Your task to perform on an android device: turn off priority inbox in the gmail app Image 0: 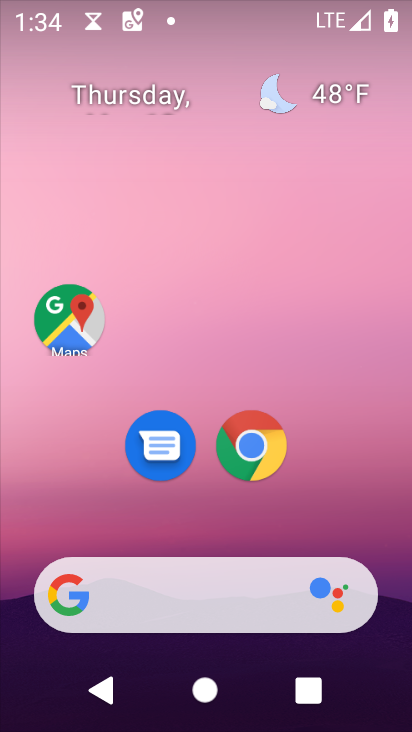
Step 0: drag from (295, 522) to (225, 64)
Your task to perform on an android device: turn off priority inbox in the gmail app Image 1: 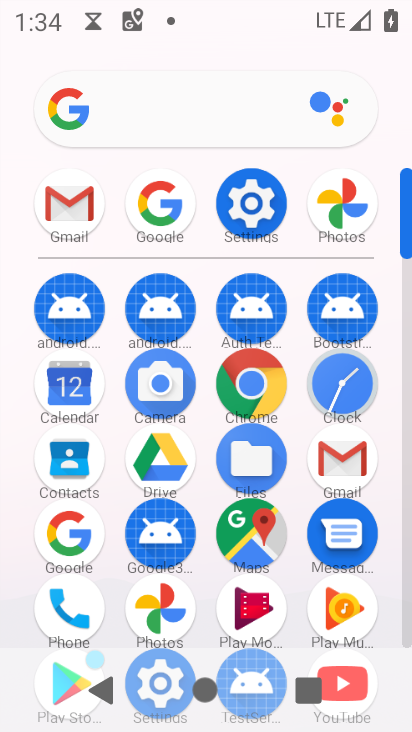
Step 1: click (339, 445)
Your task to perform on an android device: turn off priority inbox in the gmail app Image 2: 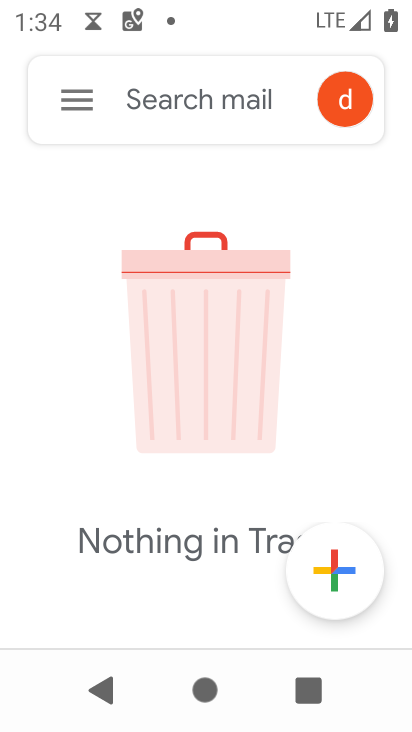
Step 2: click (76, 101)
Your task to perform on an android device: turn off priority inbox in the gmail app Image 3: 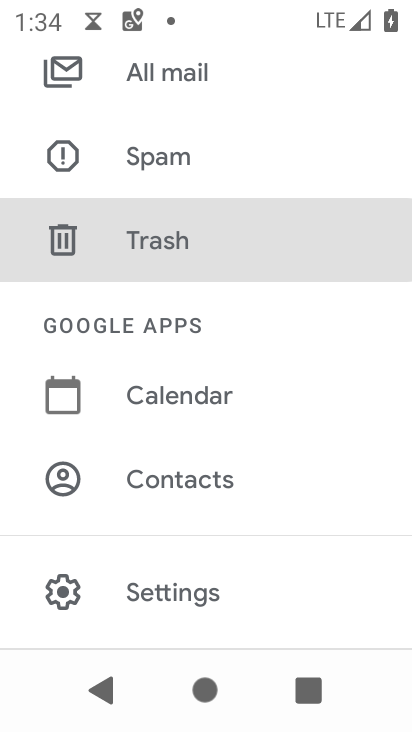
Step 3: click (178, 593)
Your task to perform on an android device: turn off priority inbox in the gmail app Image 4: 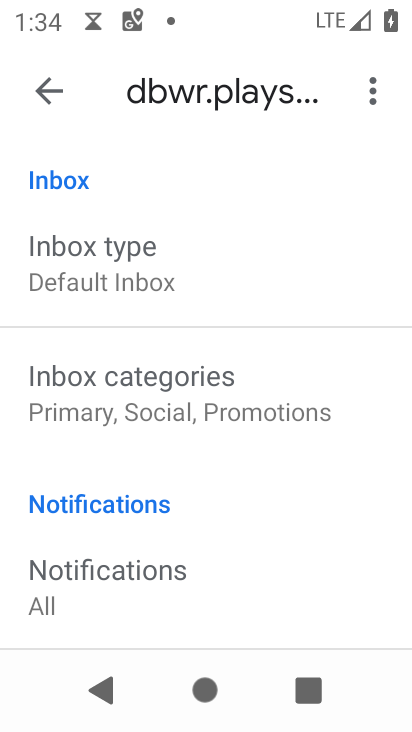
Step 4: click (131, 289)
Your task to perform on an android device: turn off priority inbox in the gmail app Image 5: 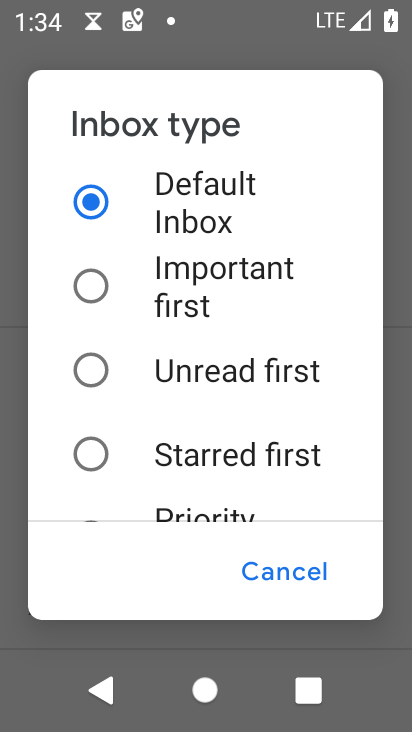
Step 5: drag from (91, 476) to (120, 231)
Your task to perform on an android device: turn off priority inbox in the gmail app Image 6: 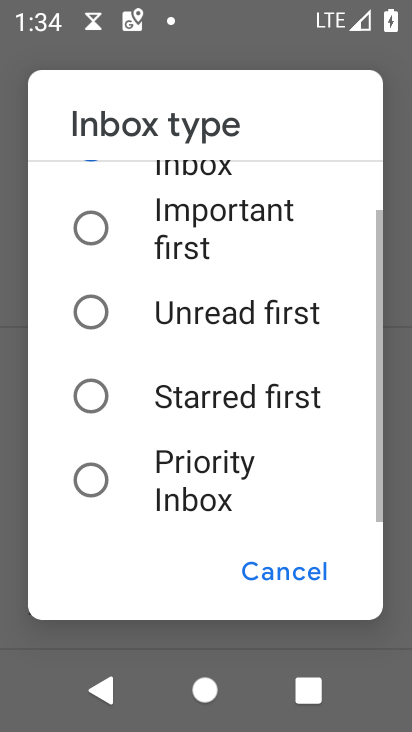
Step 6: click (96, 474)
Your task to perform on an android device: turn off priority inbox in the gmail app Image 7: 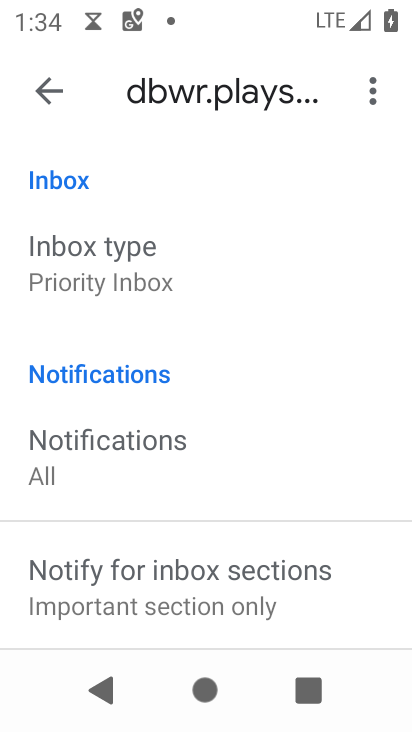
Step 7: task complete